Your task to perform on an android device: Open ESPN.com Image 0: 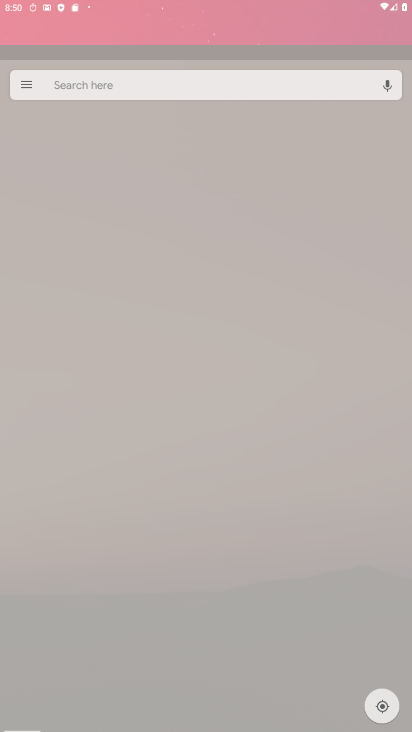
Step 0: click (242, 234)
Your task to perform on an android device: Open ESPN.com Image 1: 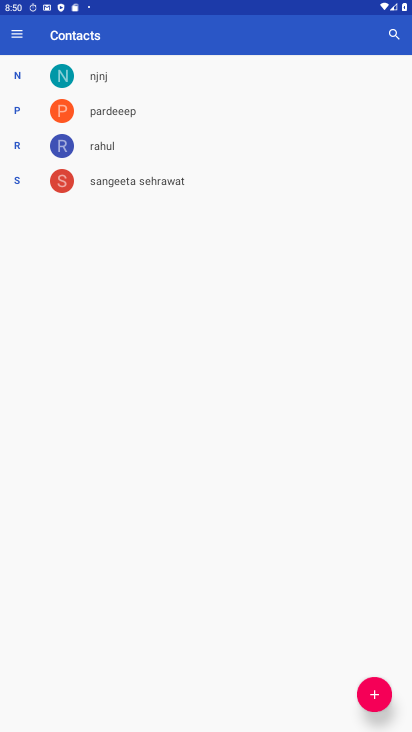
Step 1: press back button
Your task to perform on an android device: Open ESPN.com Image 2: 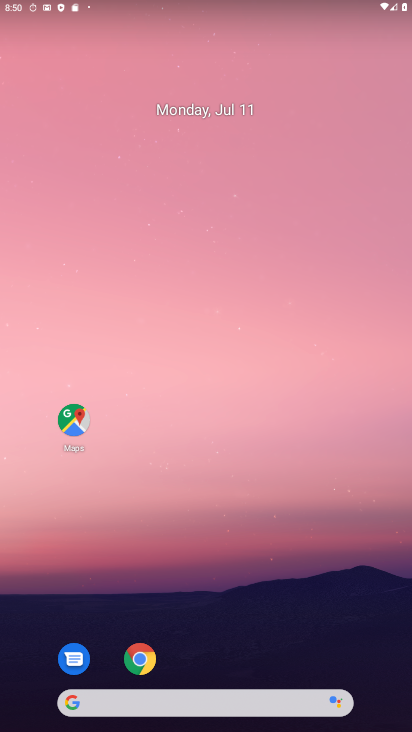
Step 2: drag from (233, 402) to (180, 173)
Your task to perform on an android device: Open ESPN.com Image 3: 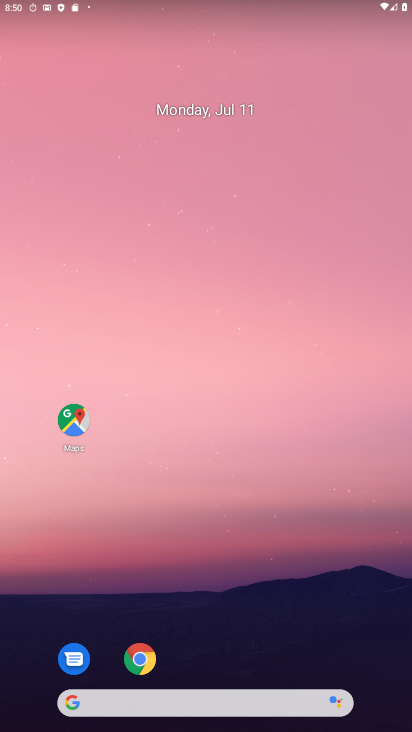
Step 3: drag from (137, 194) to (113, 109)
Your task to perform on an android device: Open ESPN.com Image 4: 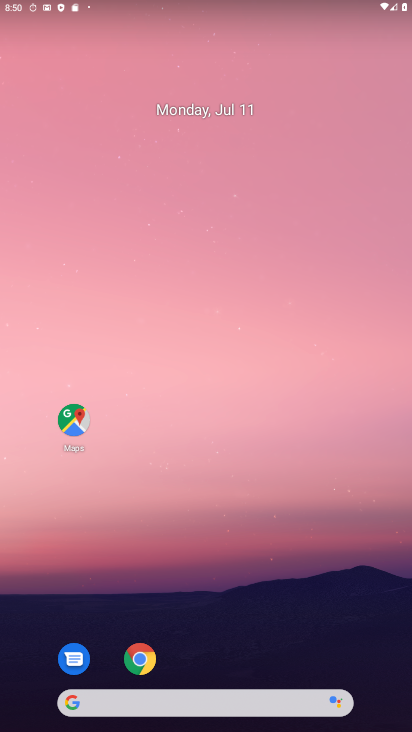
Step 4: drag from (281, 530) to (223, 166)
Your task to perform on an android device: Open ESPN.com Image 5: 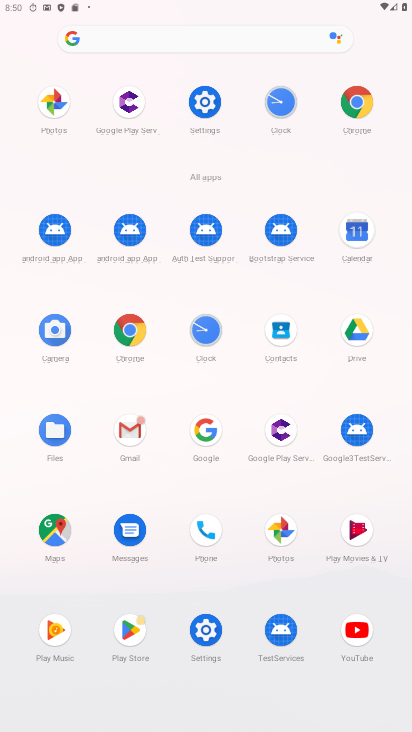
Step 5: drag from (210, 419) to (179, 72)
Your task to perform on an android device: Open ESPN.com Image 6: 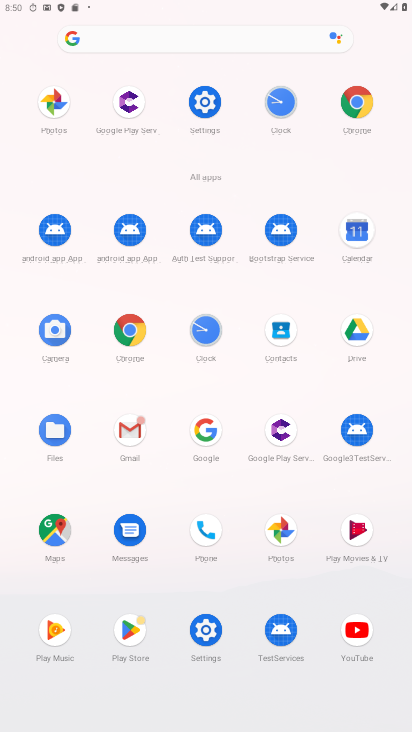
Step 6: click (353, 93)
Your task to perform on an android device: Open ESPN.com Image 7: 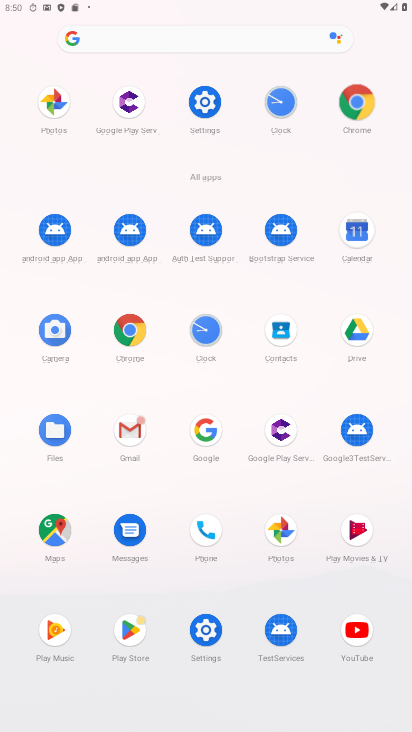
Step 7: click (356, 97)
Your task to perform on an android device: Open ESPN.com Image 8: 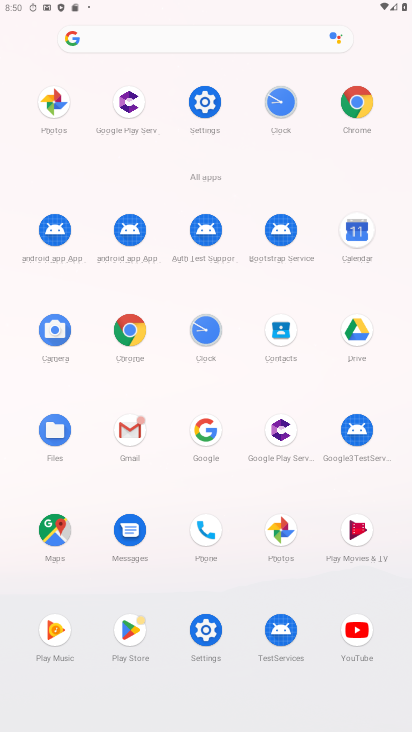
Step 8: click (356, 105)
Your task to perform on an android device: Open ESPN.com Image 9: 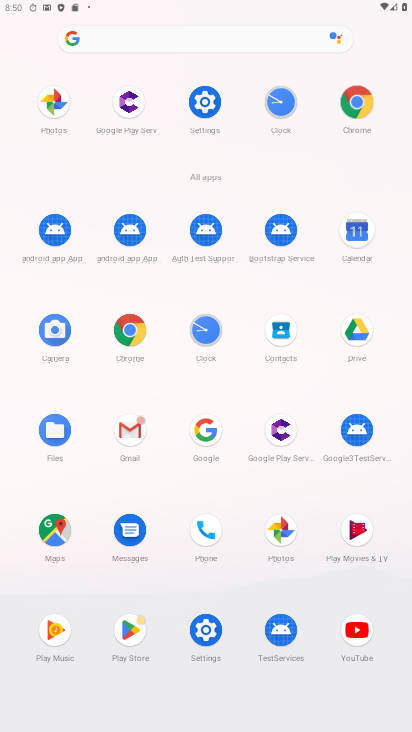
Step 9: click (358, 103)
Your task to perform on an android device: Open ESPN.com Image 10: 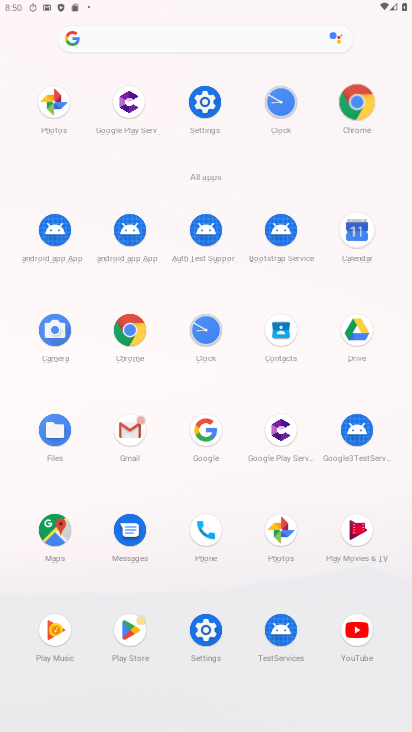
Step 10: click (358, 103)
Your task to perform on an android device: Open ESPN.com Image 11: 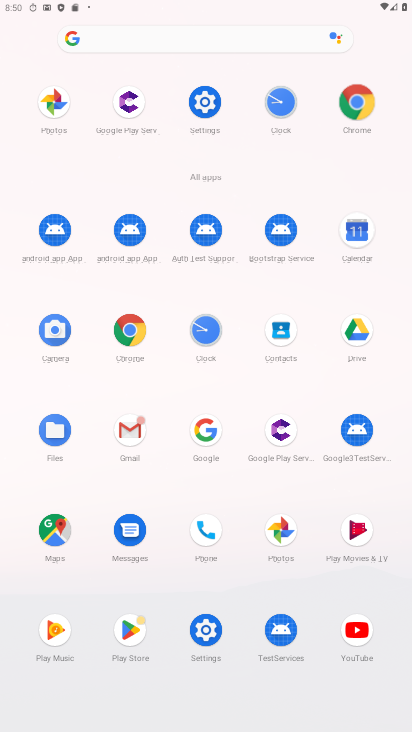
Step 11: click (359, 104)
Your task to perform on an android device: Open ESPN.com Image 12: 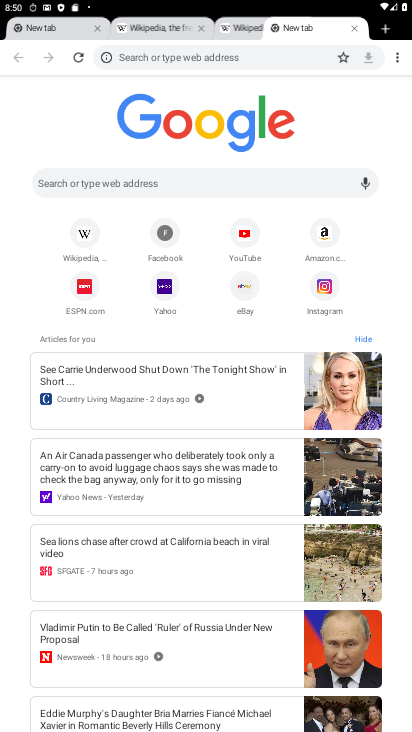
Step 12: click (91, 290)
Your task to perform on an android device: Open ESPN.com Image 13: 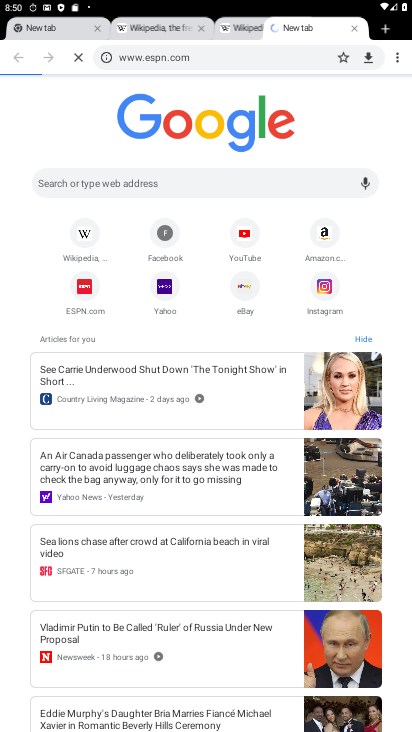
Step 13: click (92, 288)
Your task to perform on an android device: Open ESPN.com Image 14: 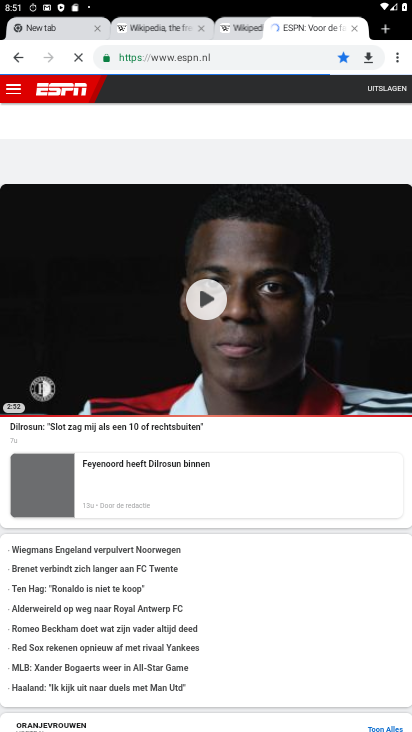
Step 14: task complete